Your task to perform on an android device: Open calendar and show me the third week of next month Image 0: 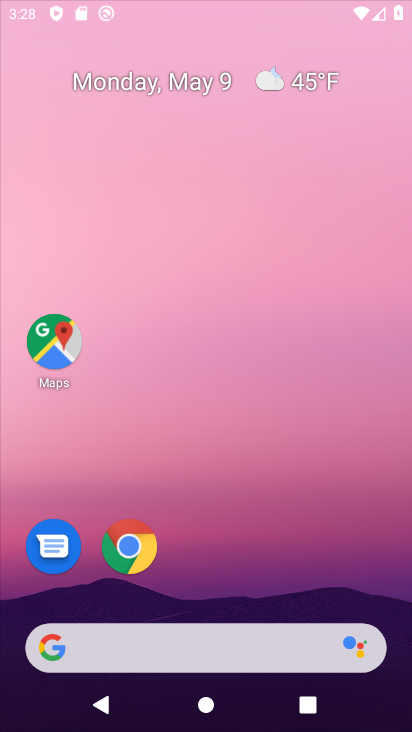
Step 0: click (125, 558)
Your task to perform on an android device: Open calendar and show me the third week of next month Image 1: 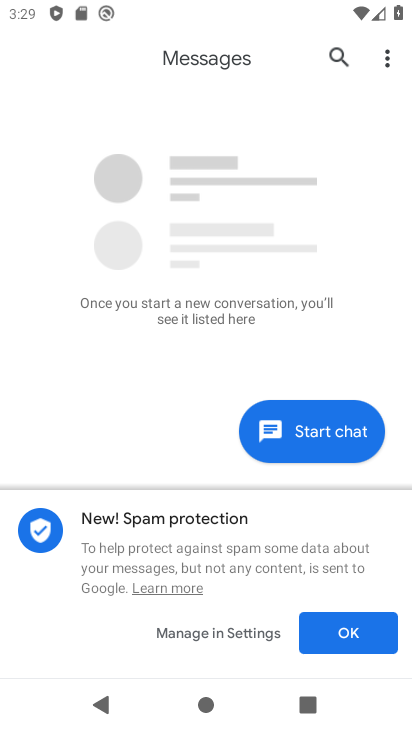
Step 1: press home button
Your task to perform on an android device: Open calendar and show me the third week of next month Image 2: 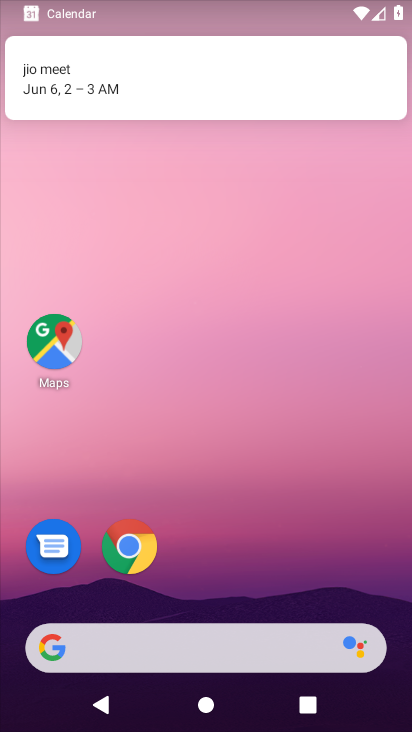
Step 2: drag from (257, 624) to (287, 382)
Your task to perform on an android device: Open calendar and show me the third week of next month Image 3: 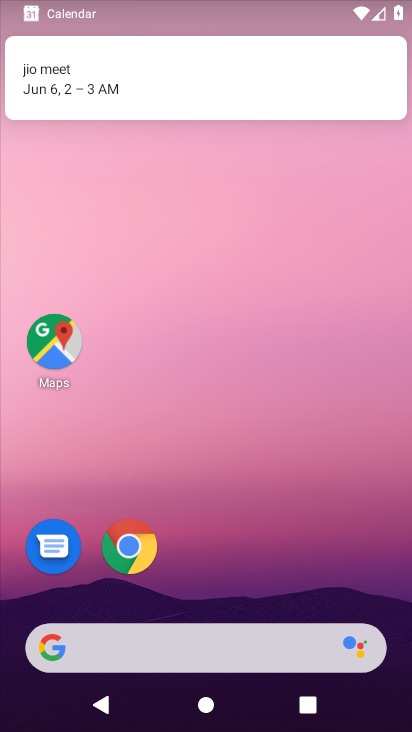
Step 3: drag from (232, 512) to (333, 33)
Your task to perform on an android device: Open calendar and show me the third week of next month Image 4: 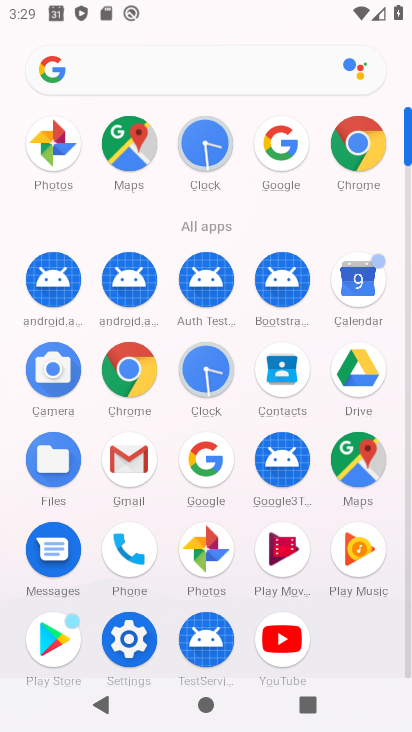
Step 4: click (363, 274)
Your task to perform on an android device: Open calendar and show me the third week of next month Image 5: 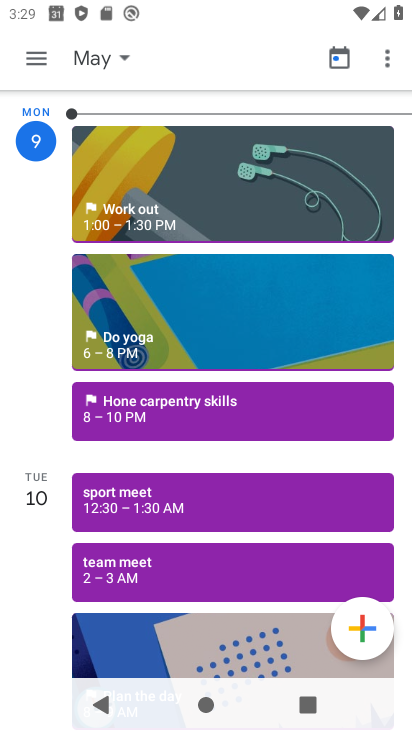
Step 5: click (120, 46)
Your task to perform on an android device: Open calendar and show me the third week of next month Image 6: 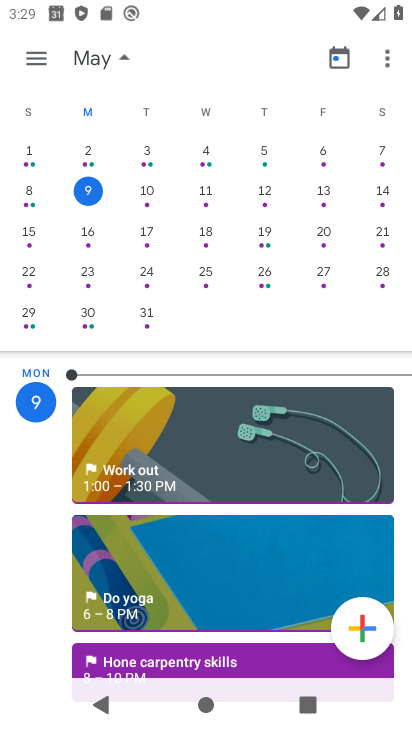
Step 6: drag from (353, 329) to (18, 333)
Your task to perform on an android device: Open calendar and show me the third week of next month Image 7: 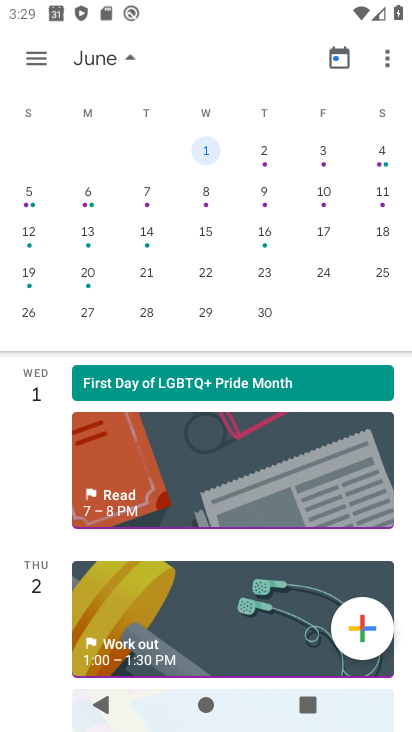
Step 7: click (26, 276)
Your task to perform on an android device: Open calendar and show me the third week of next month Image 8: 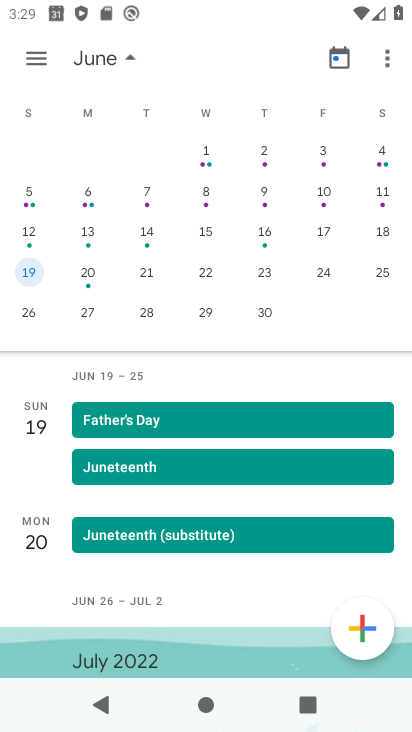
Step 8: click (48, 53)
Your task to perform on an android device: Open calendar and show me the third week of next month Image 9: 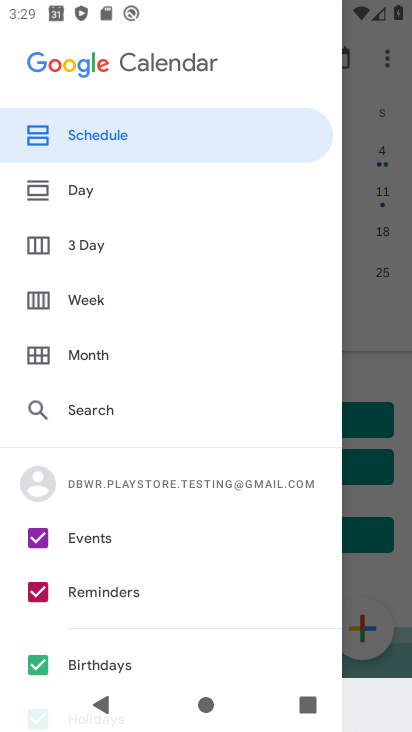
Step 9: click (91, 289)
Your task to perform on an android device: Open calendar and show me the third week of next month Image 10: 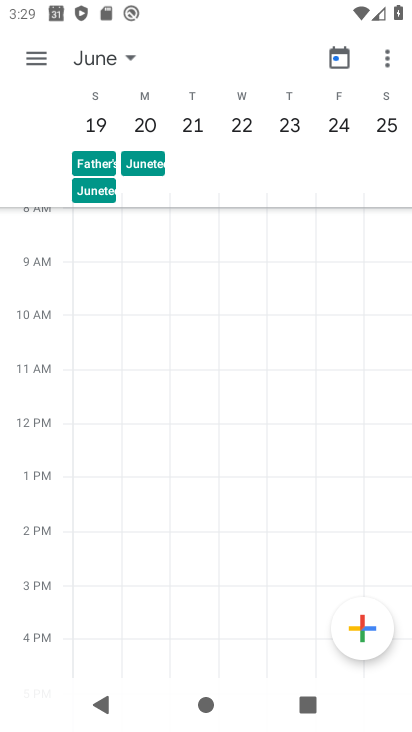
Step 10: task complete